Your task to perform on an android device: Open internet settings Image 0: 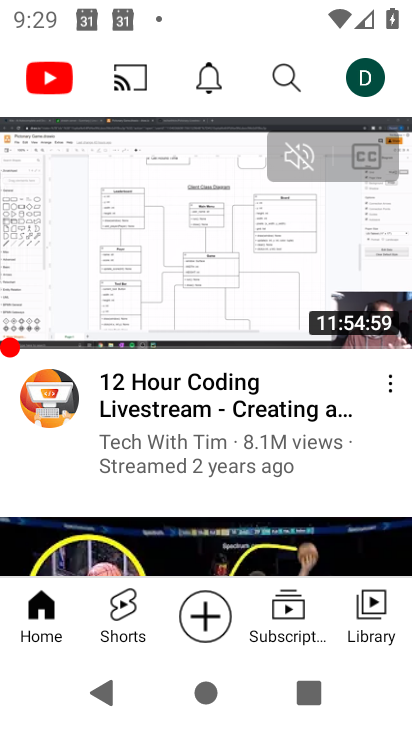
Step 0: press home button
Your task to perform on an android device: Open internet settings Image 1: 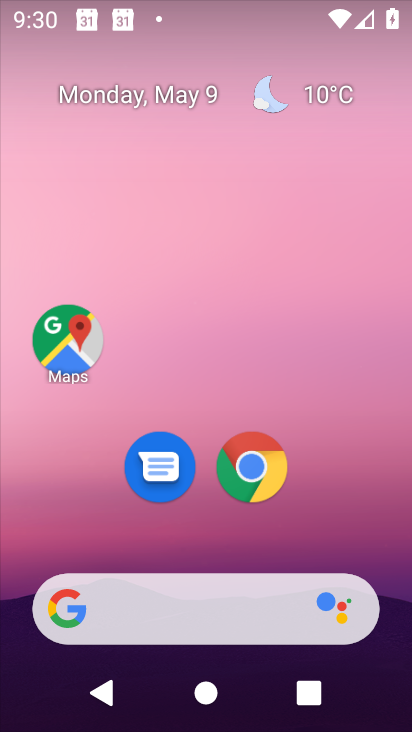
Step 1: drag from (390, 570) to (318, 7)
Your task to perform on an android device: Open internet settings Image 2: 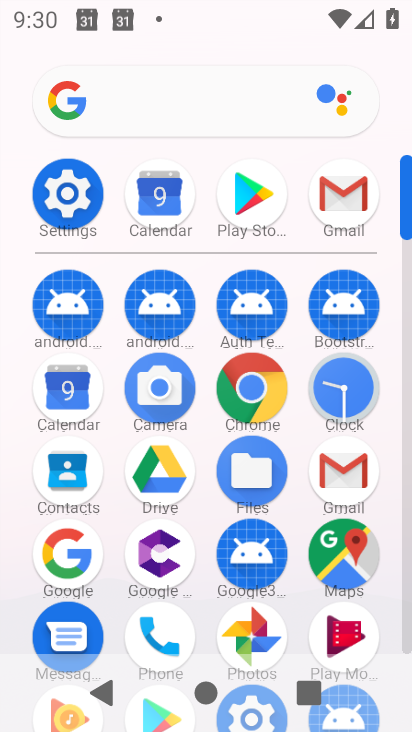
Step 2: click (60, 208)
Your task to perform on an android device: Open internet settings Image 3: 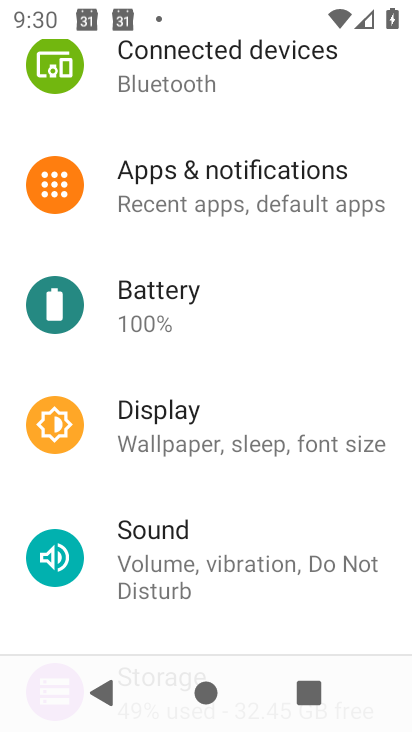
Step 3: drag from (261, 216) to (263, 562)
Your task to perform on an android device: Open internet settings Image 4: 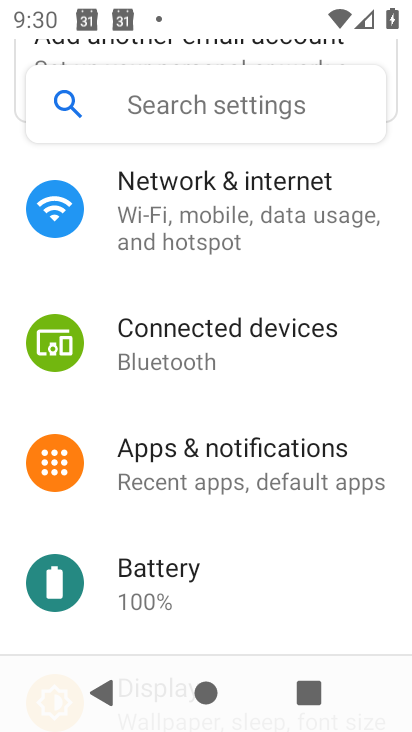
Step 4: click (192, 221)
Your task to perform on an android device: Open internet settings Image 5: 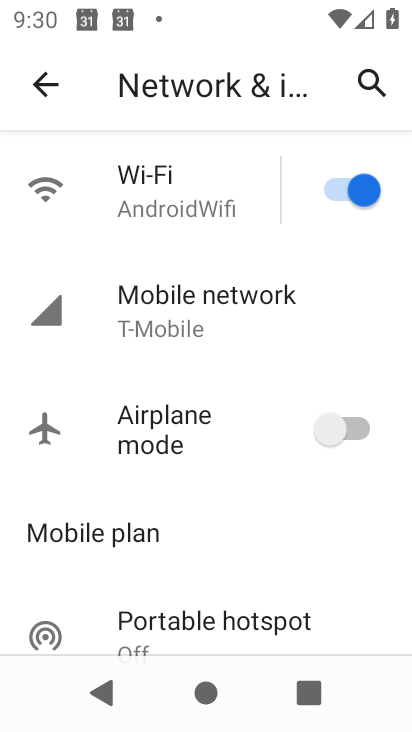
Step 5: task complete